Your task to perform on an android device: show emergency info Image 0: 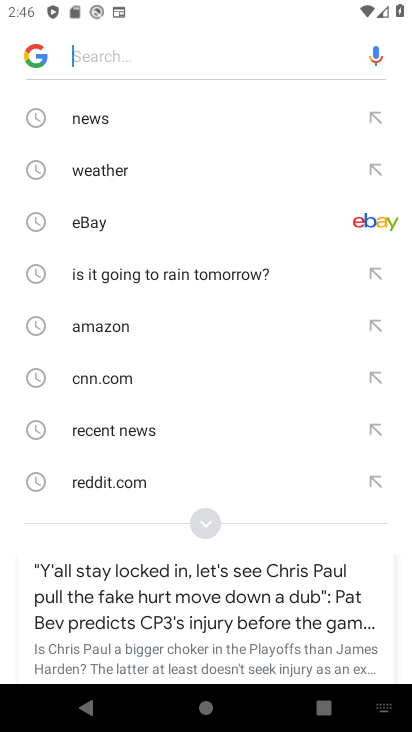
Step 0: press back button
Your task to perform on an android device: show emergency info Image 1: 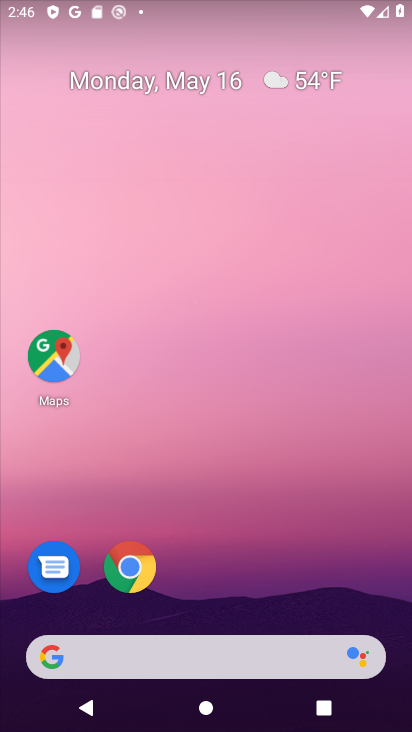
Step 1: drag from (290, 519) to (241, 64)
Your task to perform on an android device: show emergency info Image 2: 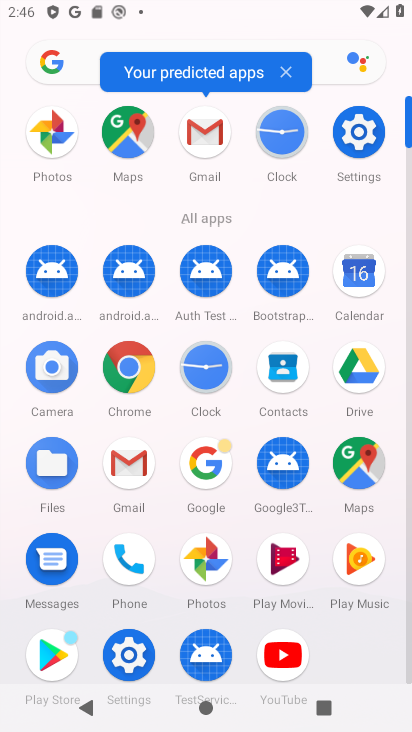
Step 2: click (359, 135)
Your task to perform on an android device: show emergency info Image 3: 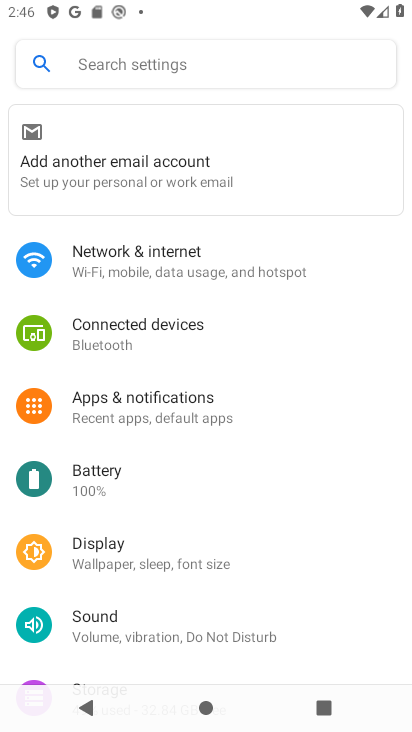
Step 3: drag from (153, 487) to (193, 409)
Your task to perform on an android device: show emergency info Image 4: 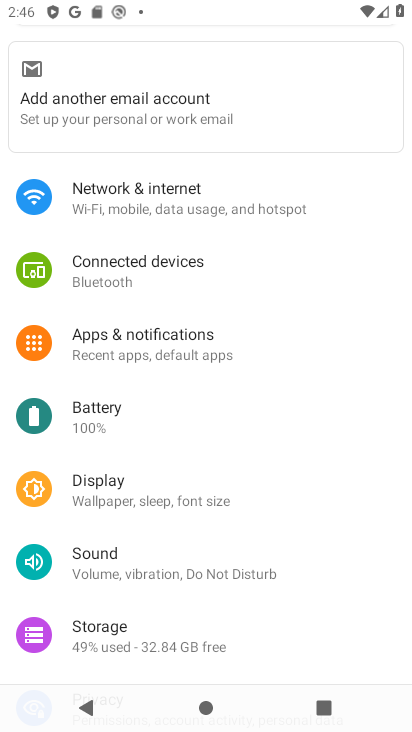
Step 4: drag from (159, 466) to (191, 371)
Your task to perform on an android device: show emergency info Image 5: 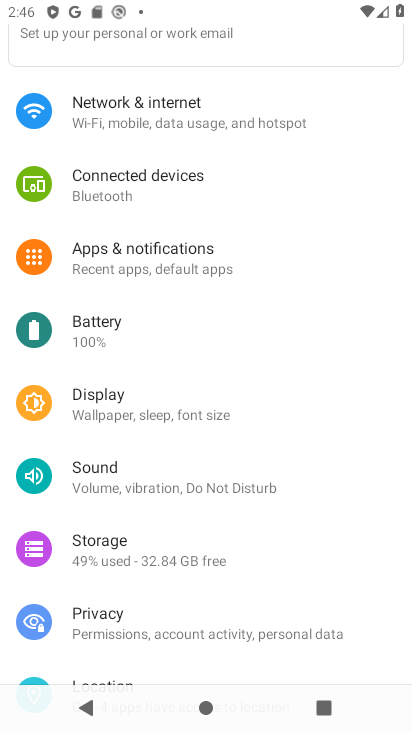
Step 5: drag from (136, 513) to (169, 425)
Your task to perform on an android device: show emergency info Image 6: 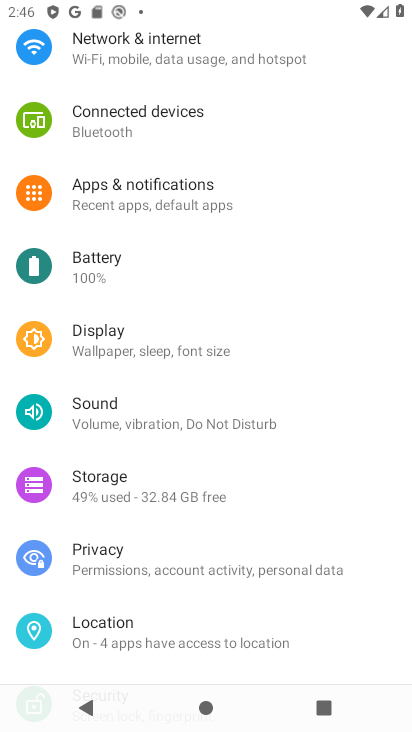
Step 6: drag from (161, 474) to (201, 381)
Your task to perform on an android device: show emergency info Image 7: 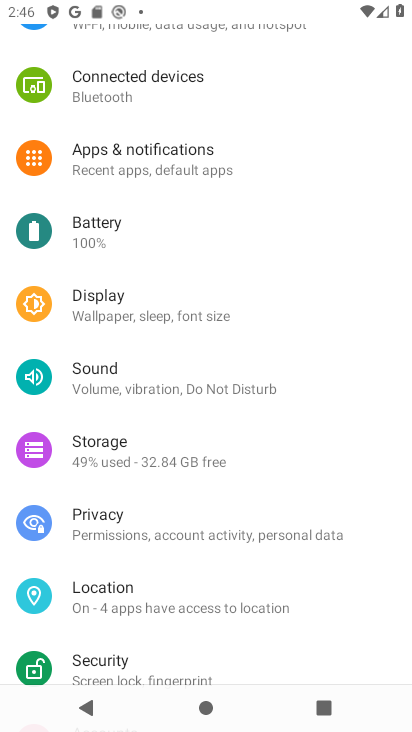
Step 7: drag from (140, 495) to (171, 363)
Your task to perform on an android device: show emergency info Image 8: 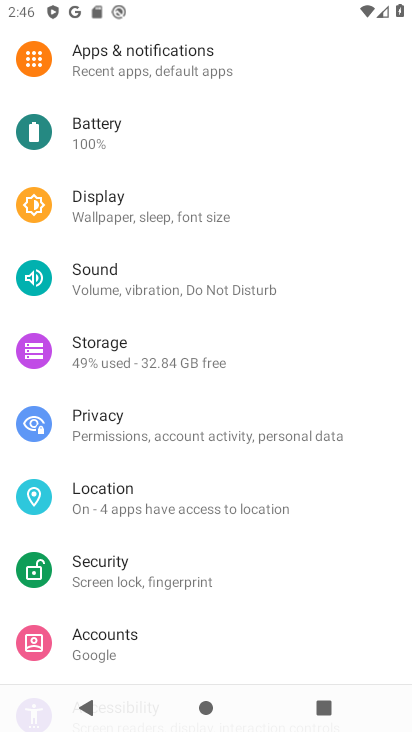
Step 8: drag from (144, 463) to (201, 355)
Your task to perform on an android device: show emergency info Image 9: 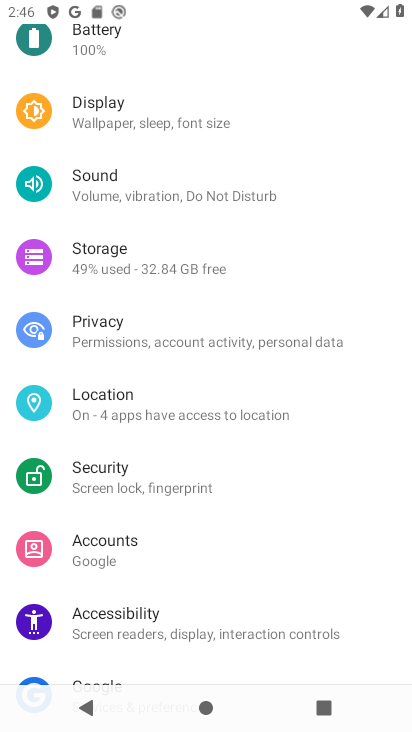
Step 9: drag from (111, 514) to (182, 429)
Your task to perform on an android device: show emergency info Image 10: 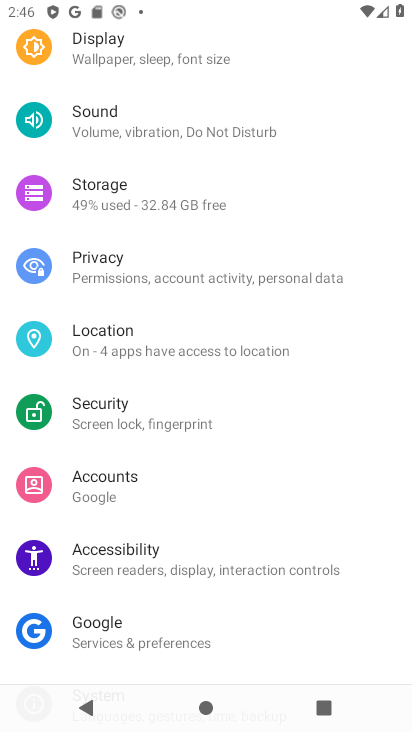
Step 10: drag from (105, 518) to (190, 424)
Your task to perform on an android device: show emergency info Image 11: 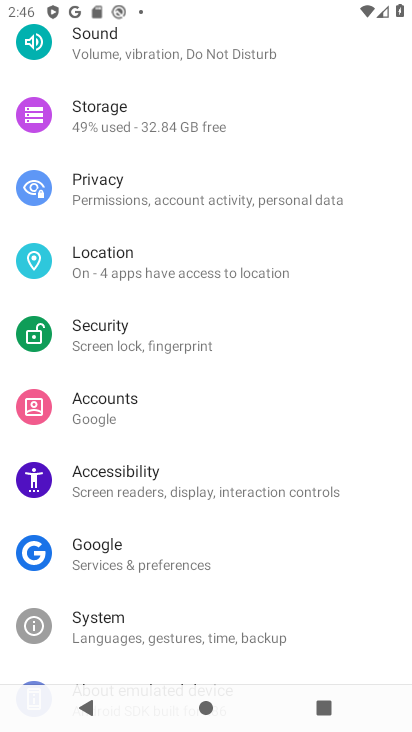
Step 11: drag from (110, 515) to (208, 414)
Your task to perform on an android device: show emergency info Image 12: 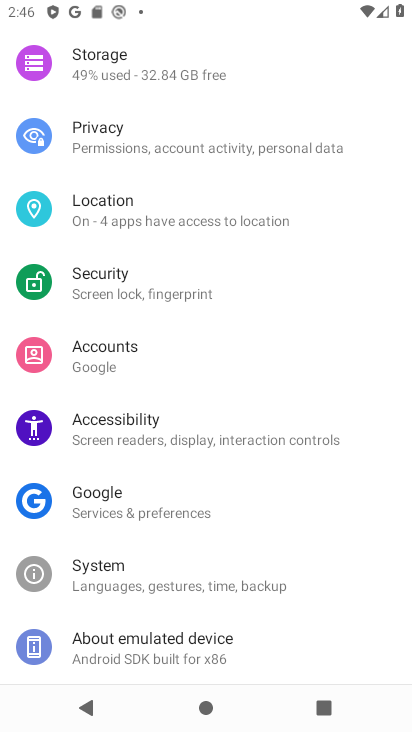
Step 12: click (123, 635)
Your task to perform on an android device: show emergency info Image 13: 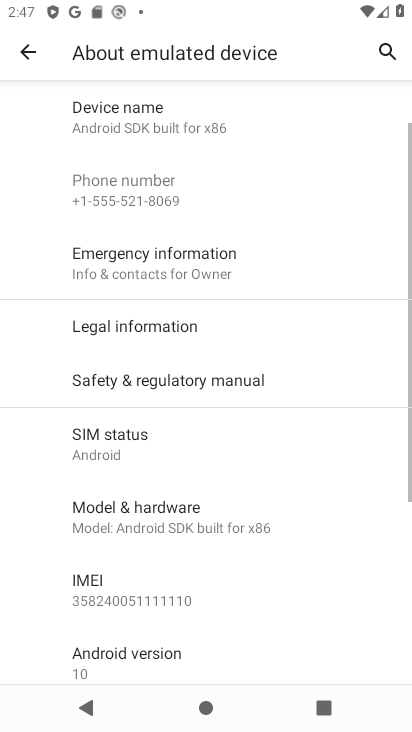
Step 13: click (132, 252)
Your task to perform on an android device: show emergency info Image 14: 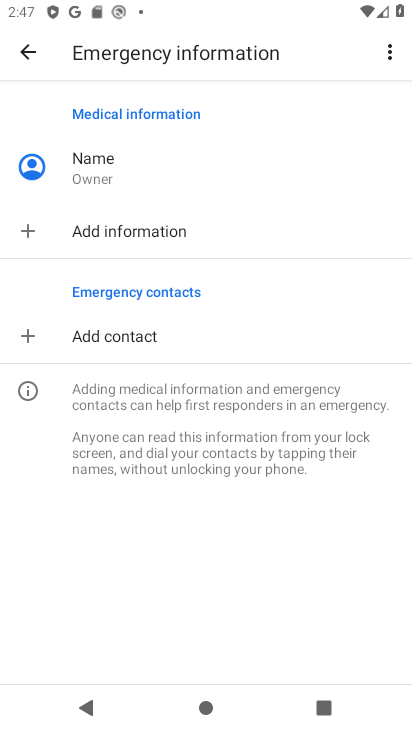
Step 14: task complete